Your task to perform on an android device: Open accessibility settings Image 0: 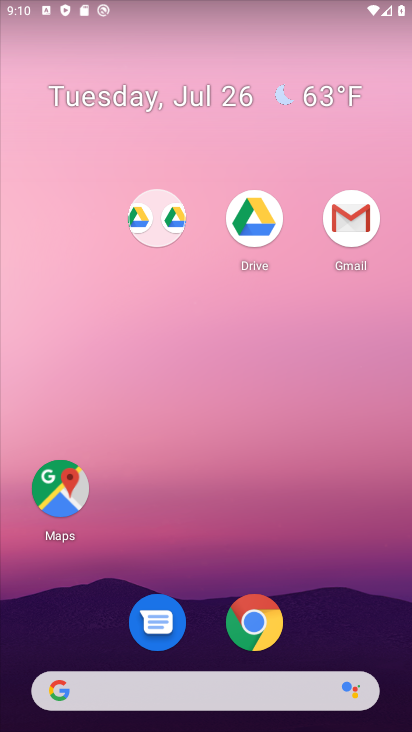
Step 0: drag from (344, 631) to (244, 110)
Your task to perform on an android device: Open accessibility settings Image 1: 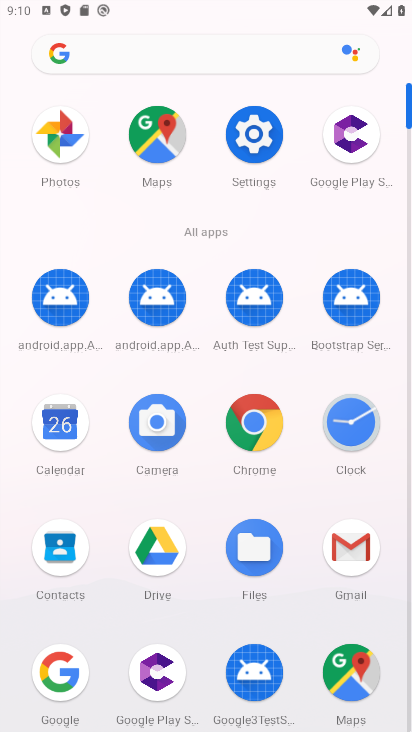
Step 1: click (251, 127)
Your task to perform on an android device: Open accessibility settings Image 2: 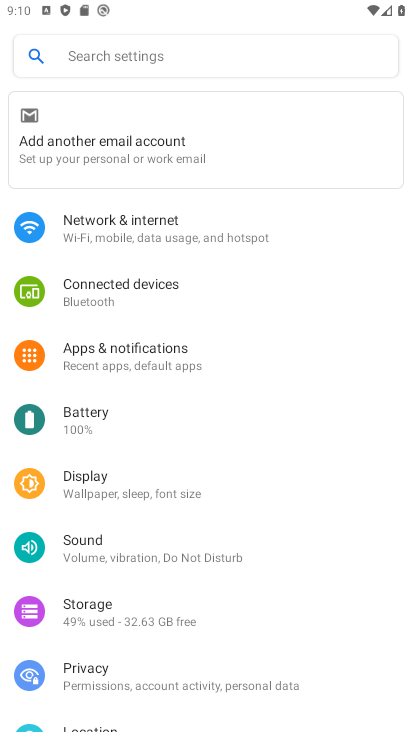
Step 2: drag from (197, 614) to (211, 206)
Your task to perform on an android device: Open accessibility settings Image 3: 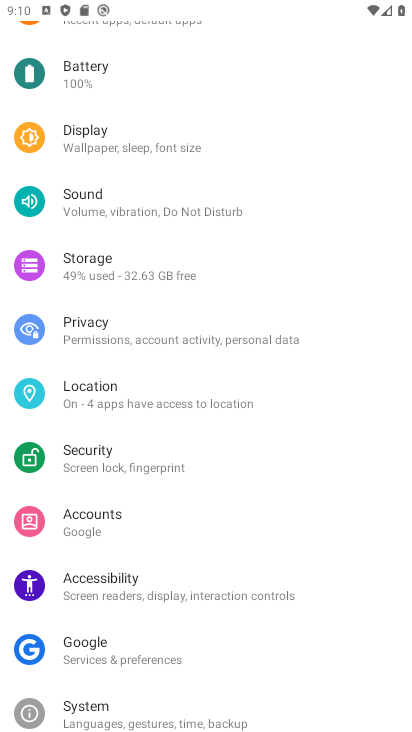
Step 3: click (217, 593)
Your task to perform on an android device: Open accessibility settings Image 4: 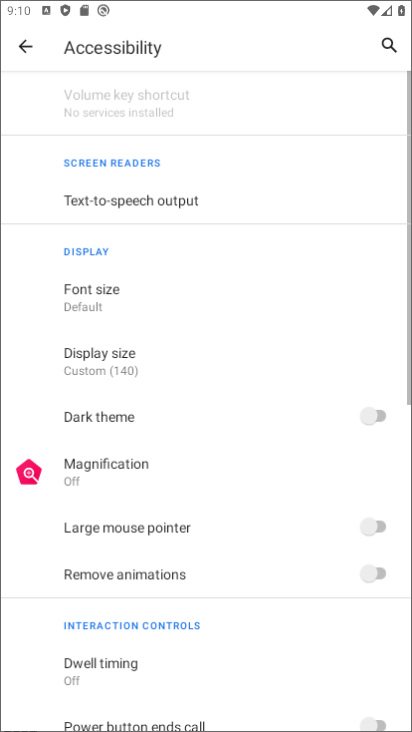
Step 4: task complete